Your task to perform on an android device: move an email to a new category in the gmail app Image 0: 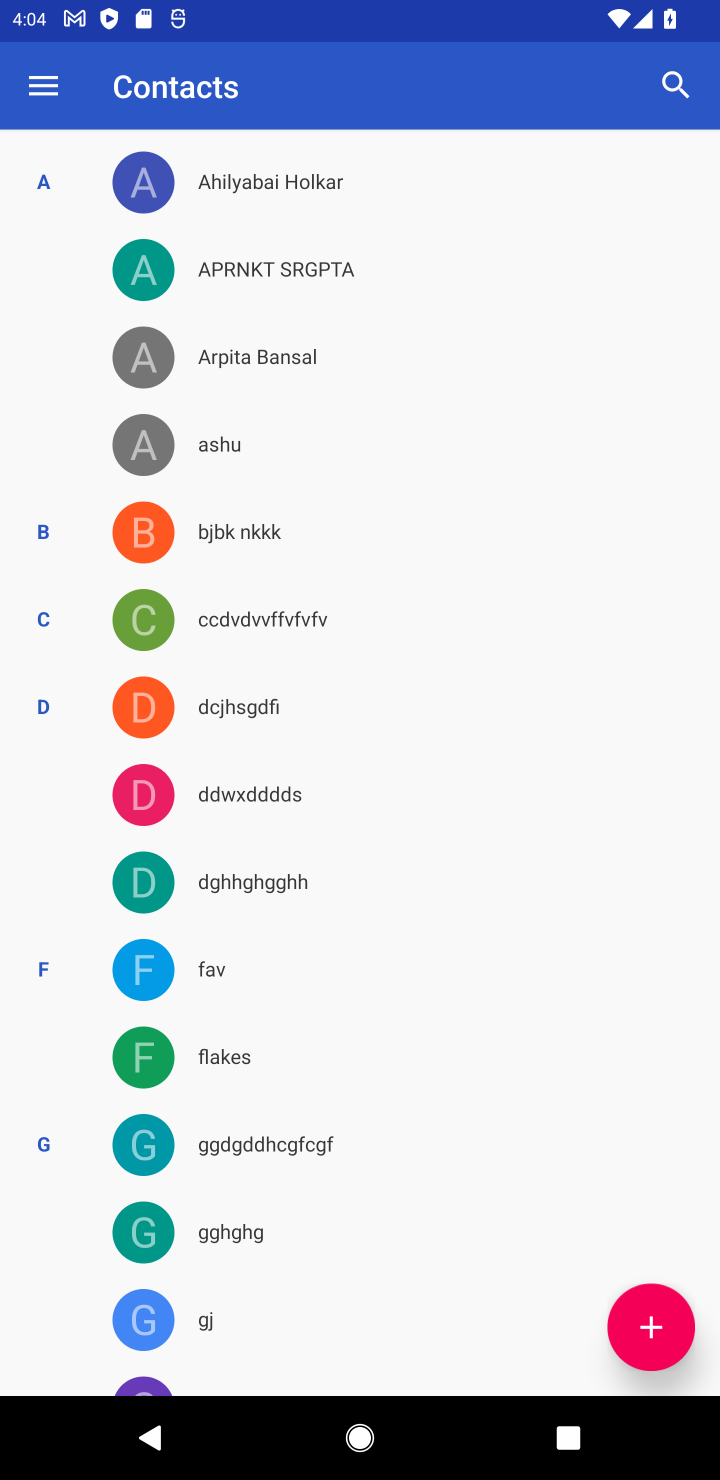
Step 0: press home button
Your task to perform on an android device: move an email to a new category in the gmail app Image 1: 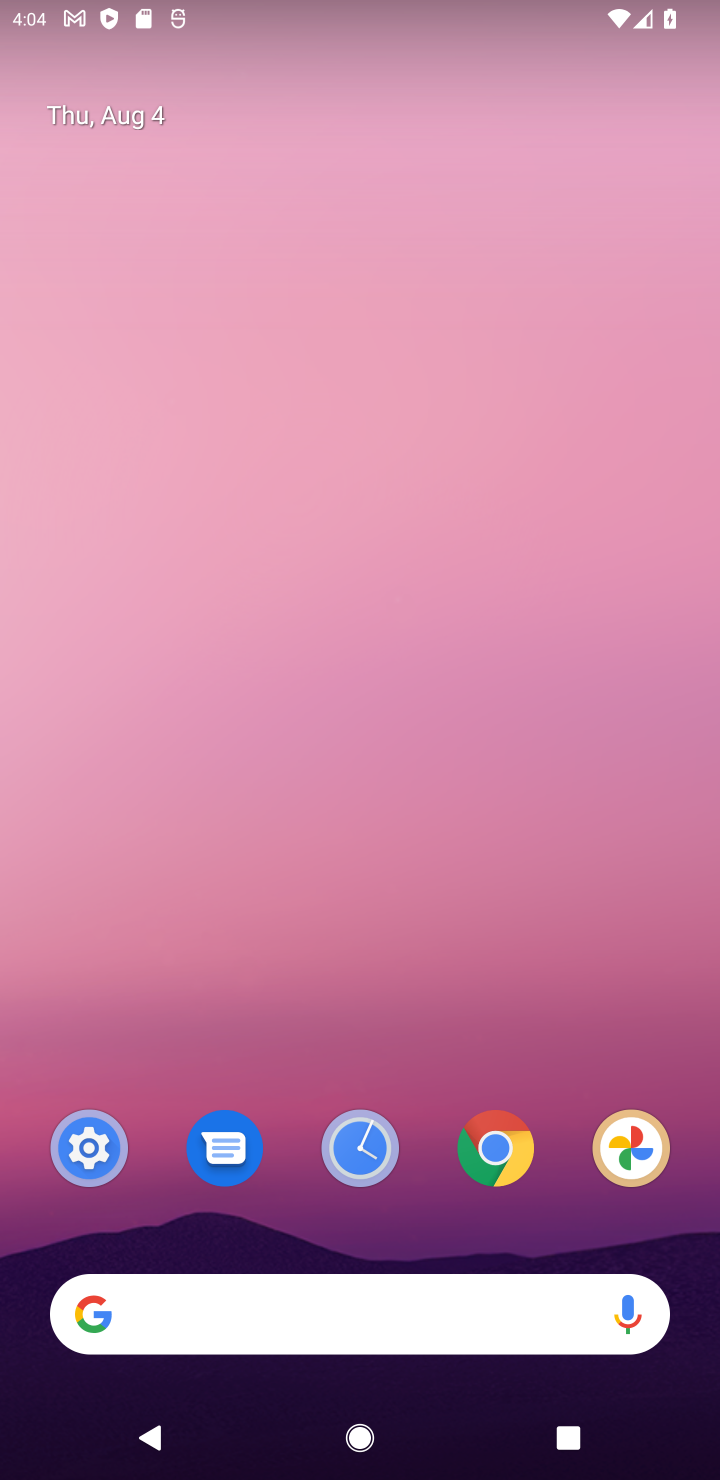
Step 1: drag from (693, 1225) to (586, 387)
Your task to perform on an android device: move an email to a new category in the gmail app Image 2: 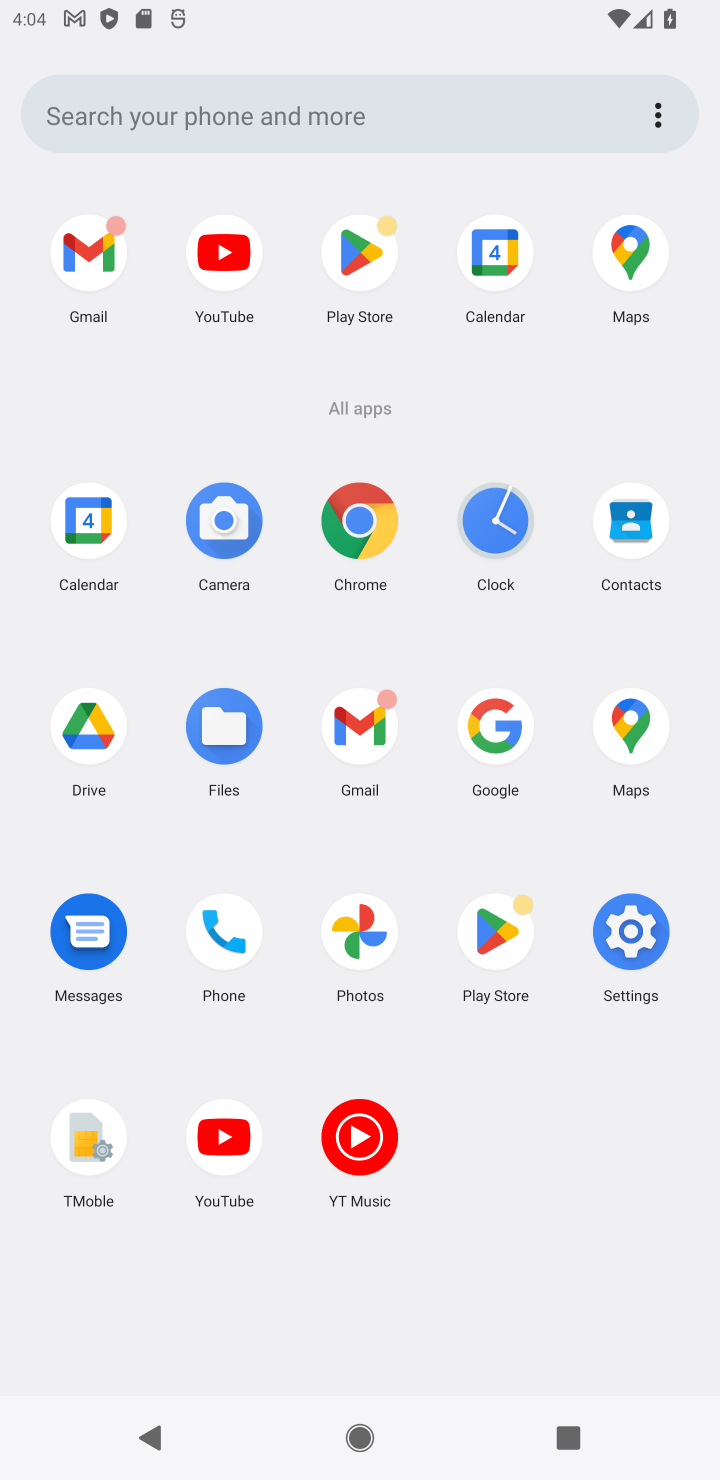
Step 2: click (354, 723)
Your task to perform on an android device: move an email to a new category in the gmail app Image 3: 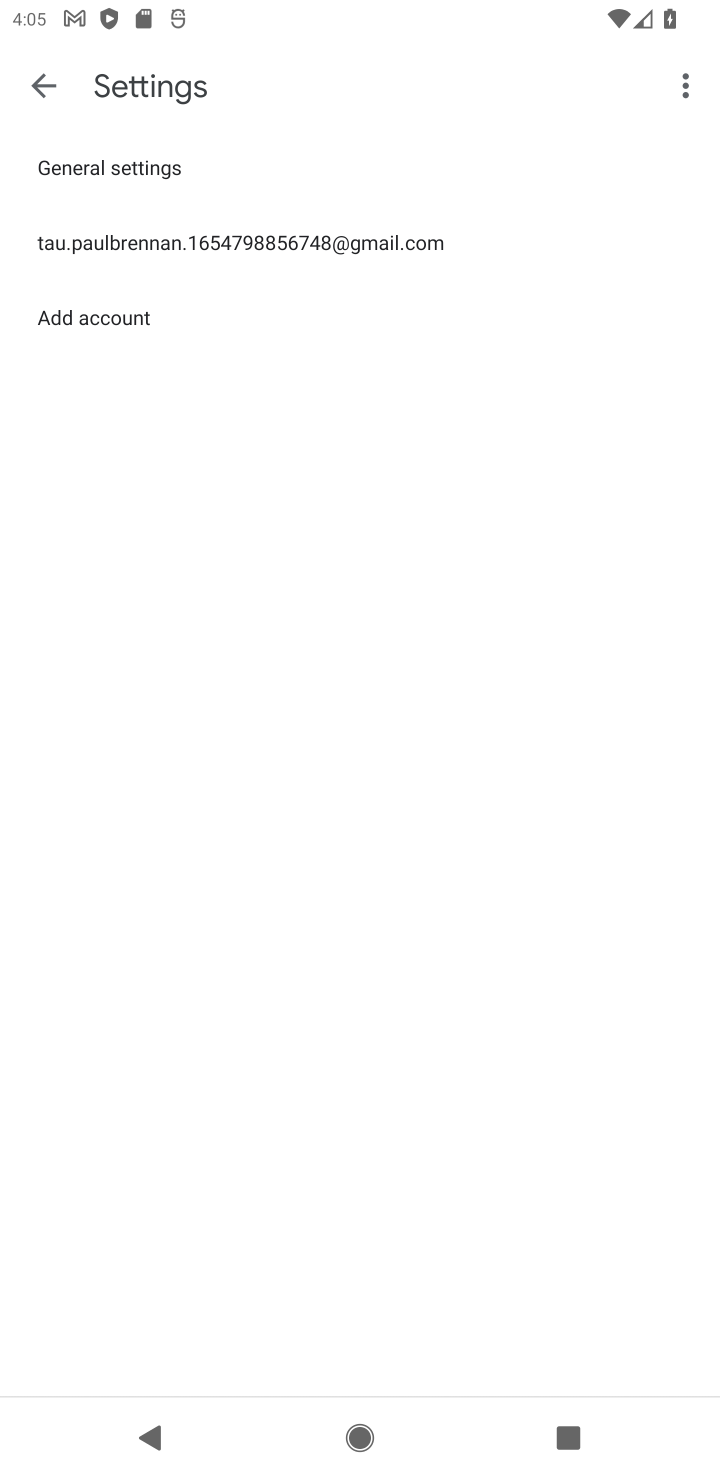
Step 3: press back button
Your task to perform on an android device: move an email to a new category in the gmail app Image 4: 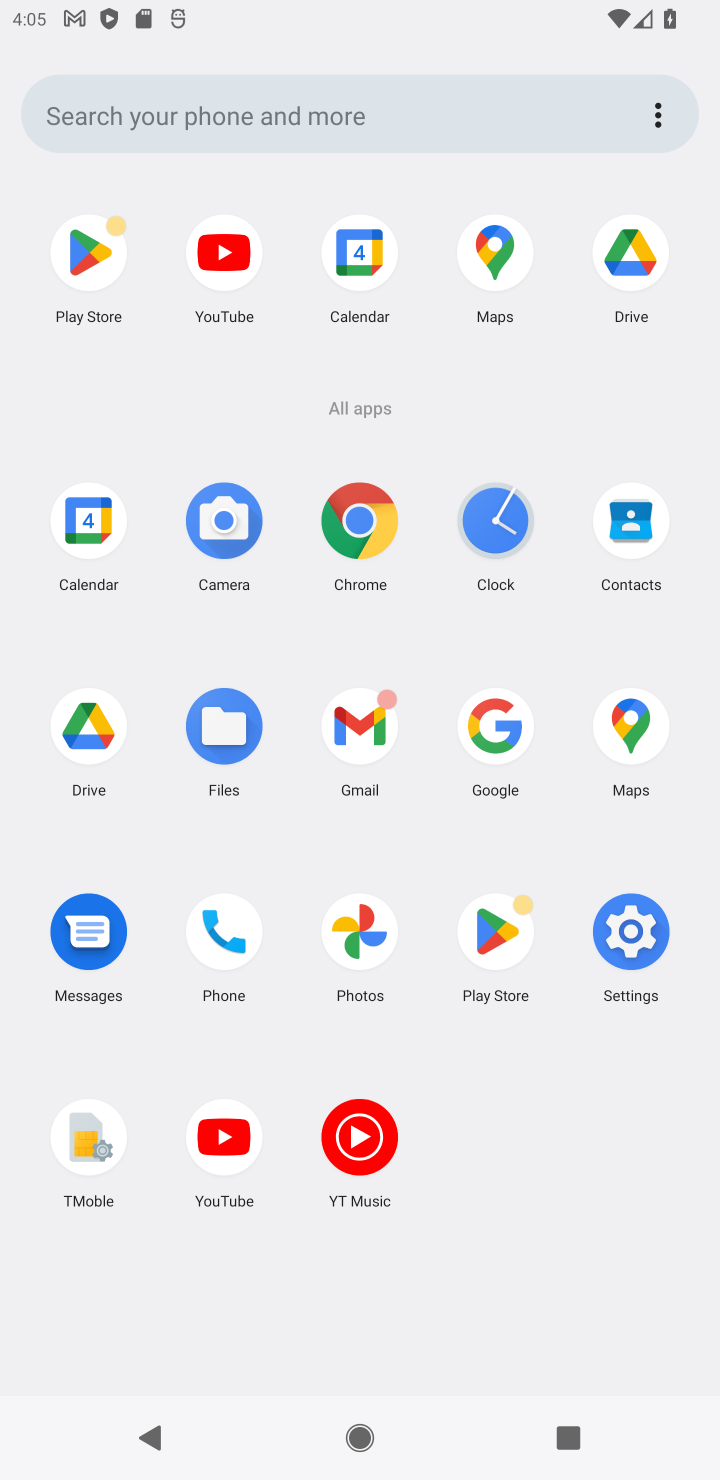
Step 4: click (357, 728)
Your task to perform on an android device: move an email to a new category in the gmail app Image 5: 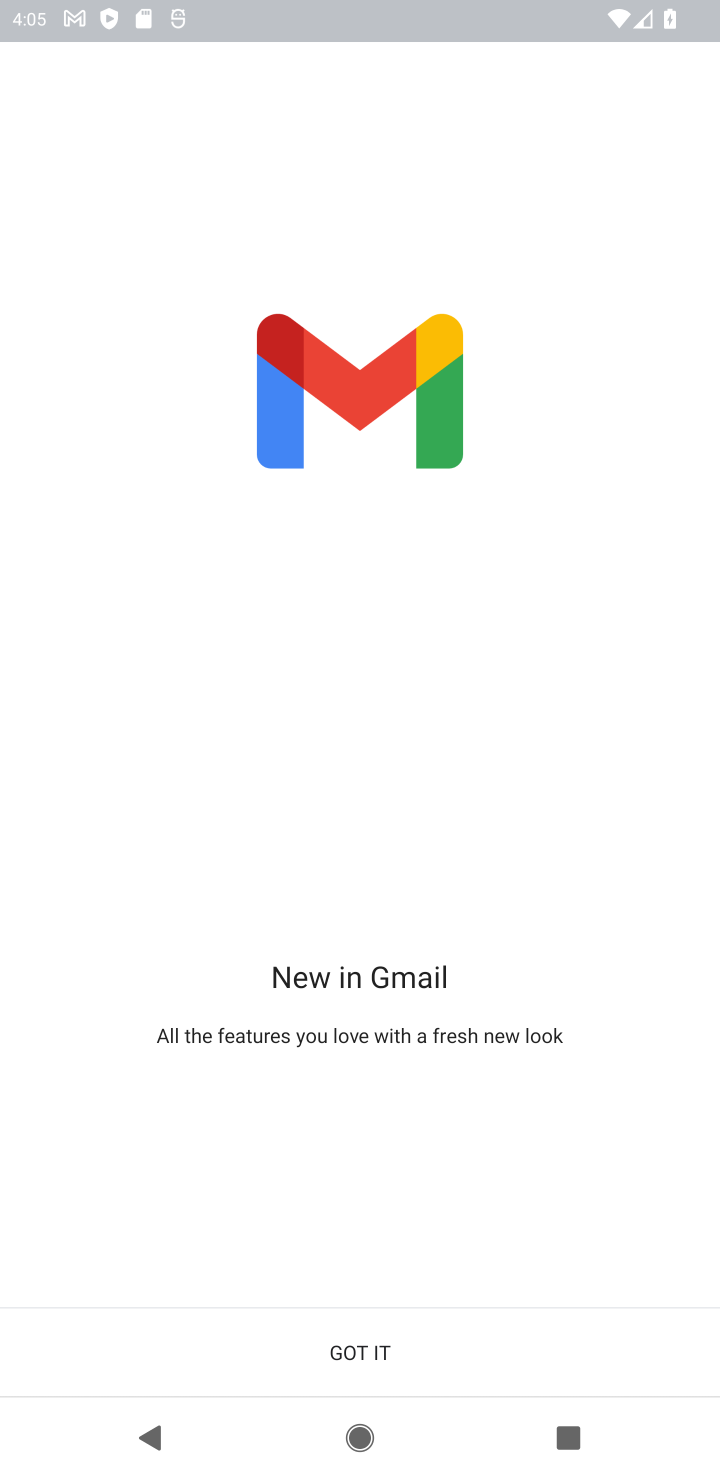
Step 5: click (351, 1350)
Your task to perform on an android device: move an email to a new category in the gmail app Image 6: 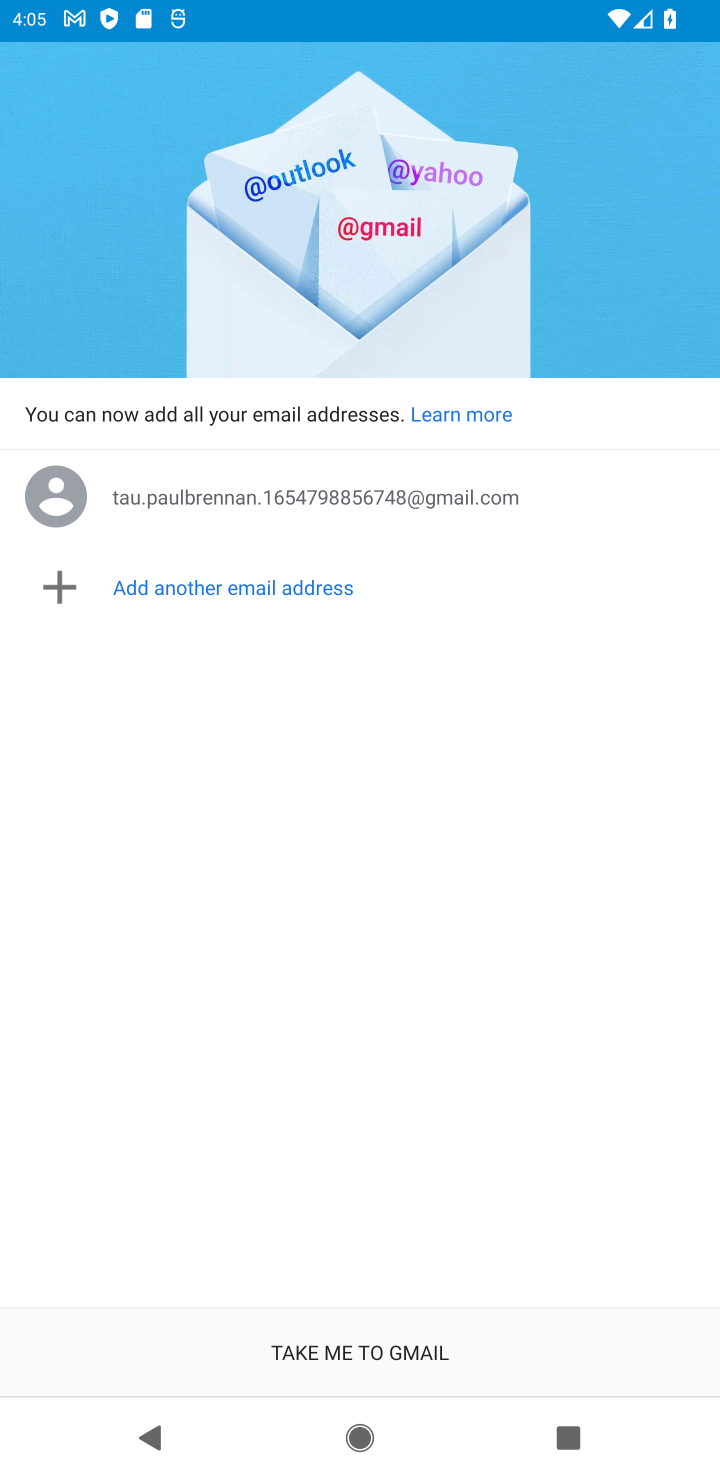
Step 6: click (372, 1340)
Your task to perform on an android device: move an email to a new category in the gmail app Image 7: 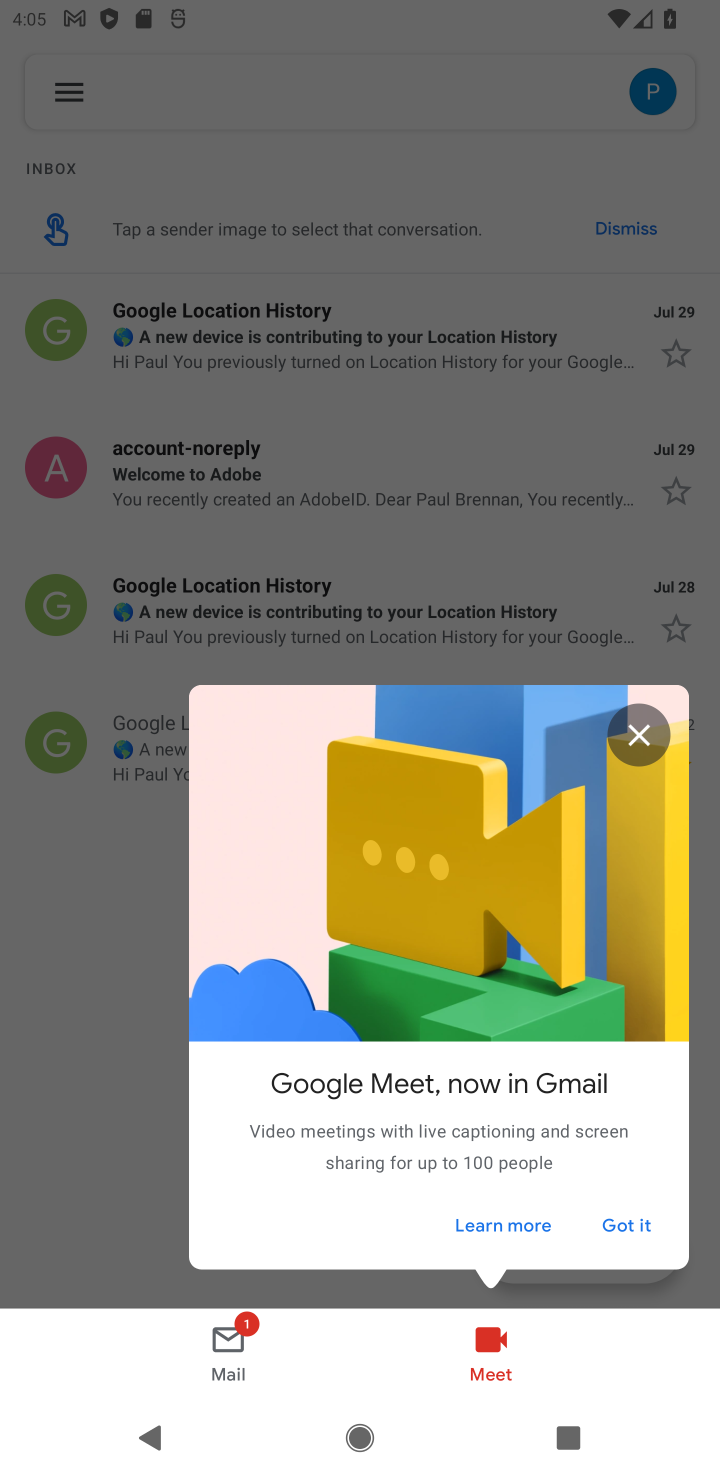
Step 7: click (638, 734)
Your task to perform on an android device: move an email to a new category in the gmail app Image 8: 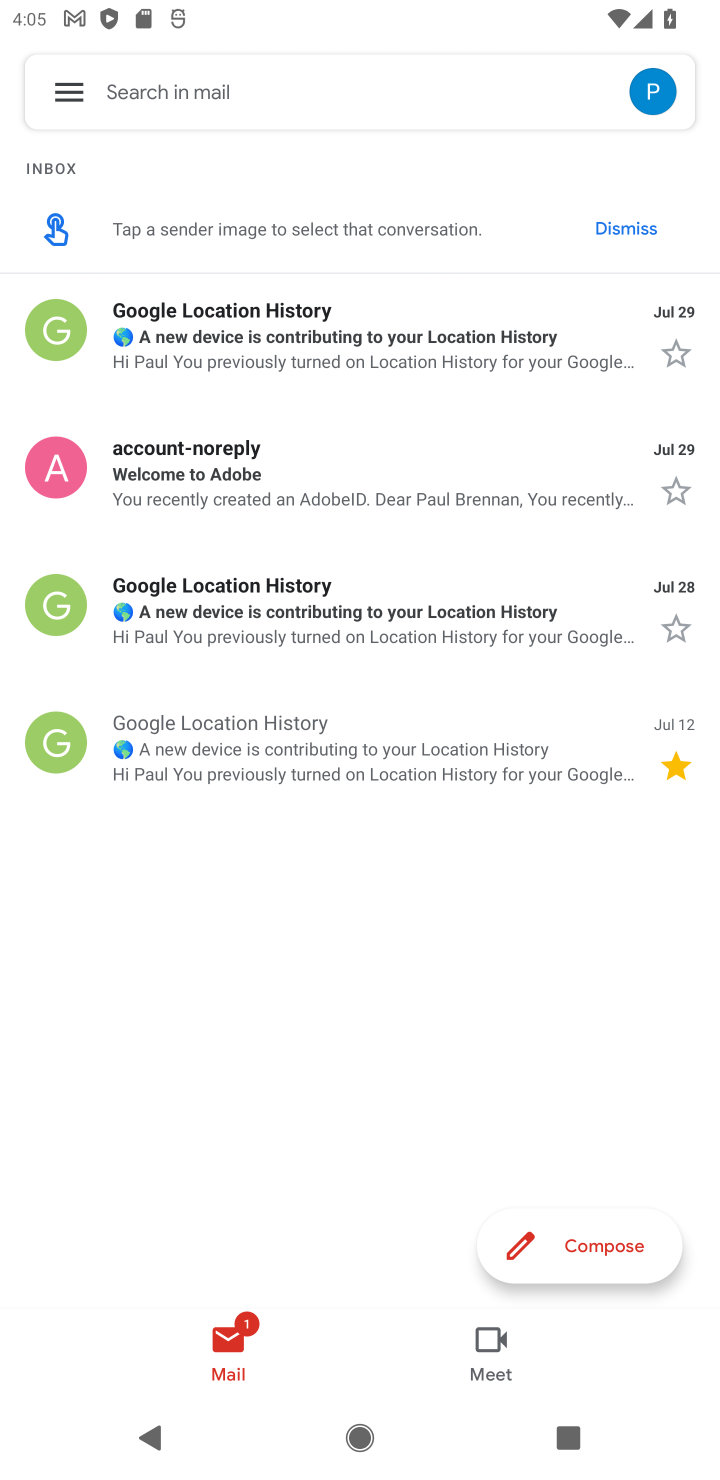
Step 8: click (339, 341)
Your task to perform on an android device: move an email to a new category in the gmail app Image 9: 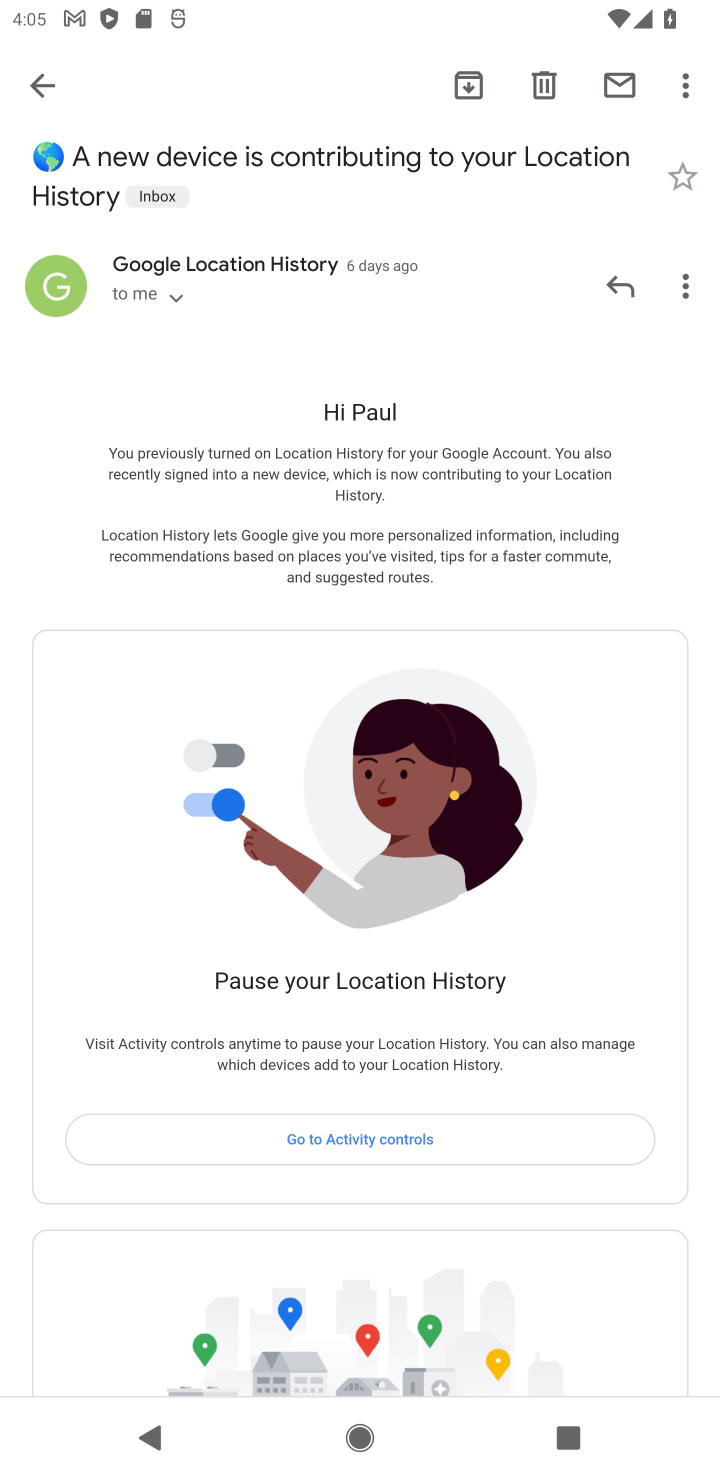
Step 9: click (681, 94)
Your task to perform on an android device: move an email to a new category in the gmail app Image 10: 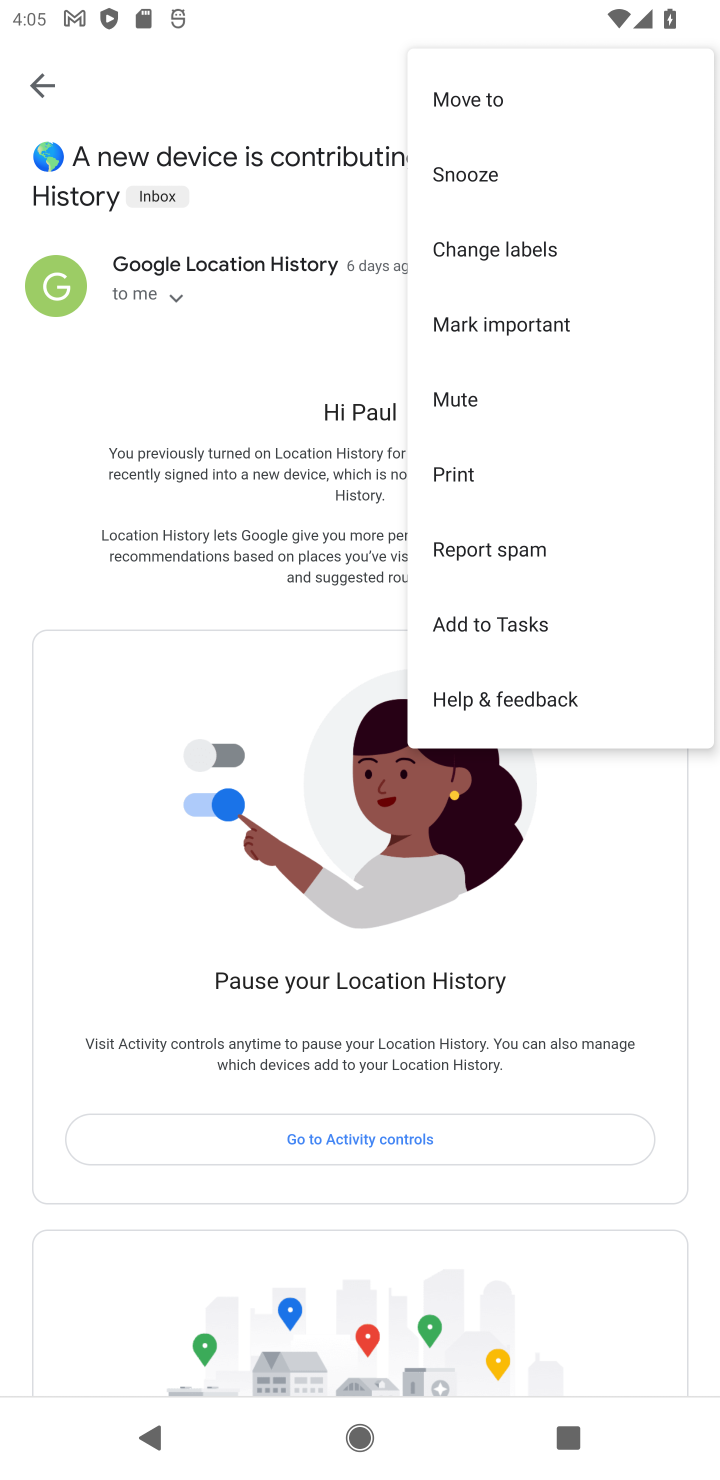
Step 10: click (474, 97)
Your task to perform on an android device: move an email to a new category in the gmail app Image 11: 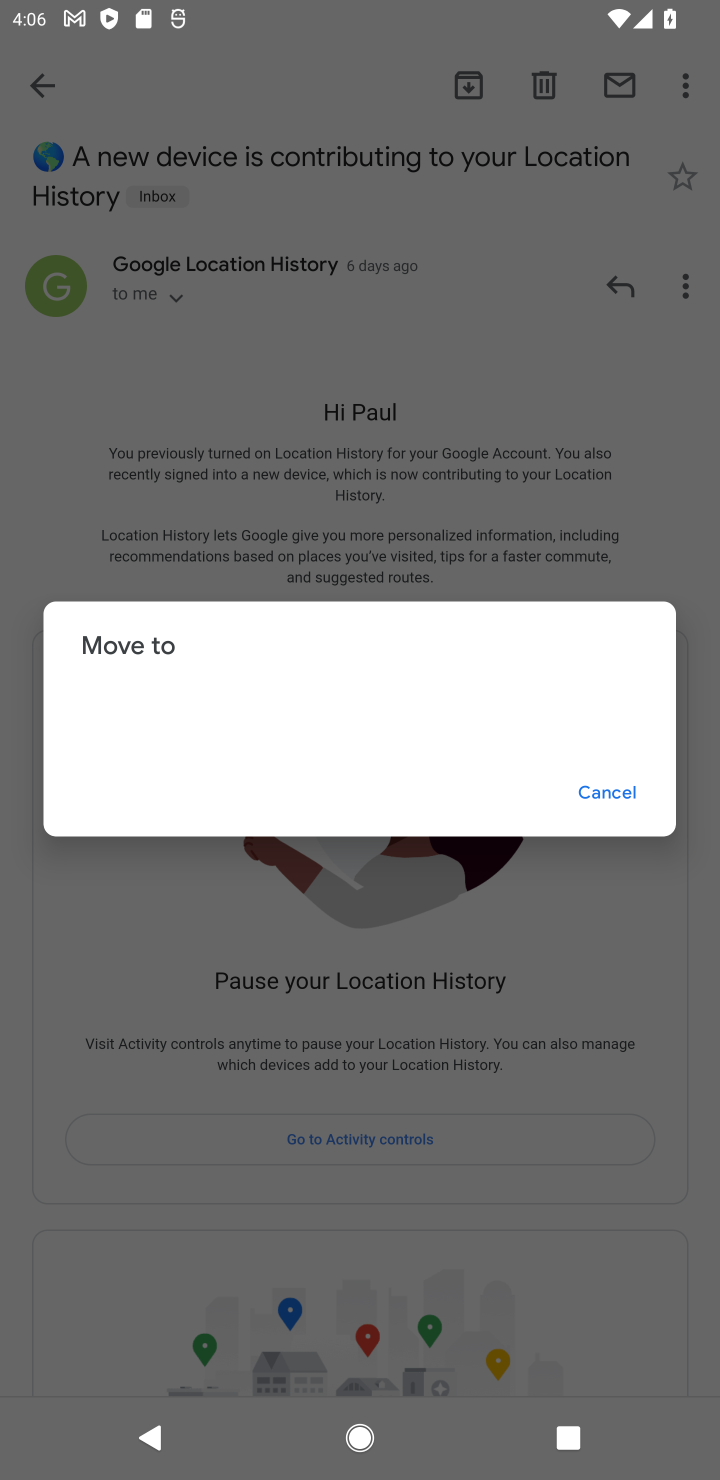
Step 11: task complete